Your task to perform on an android device: Open maps Image 0: 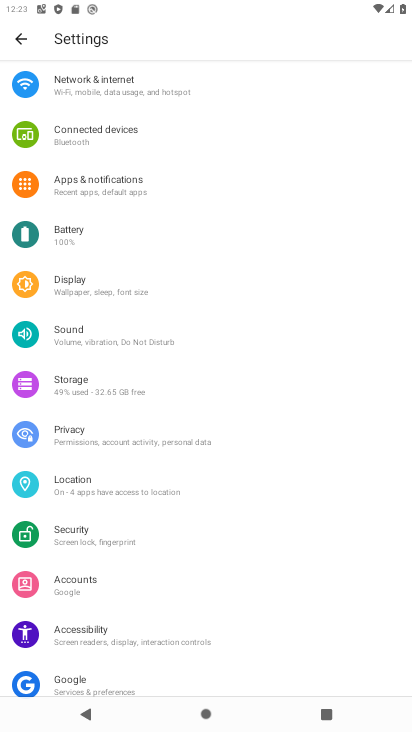
Step 0: press home button
Your task to perform on an android device: Open maps Image 1: 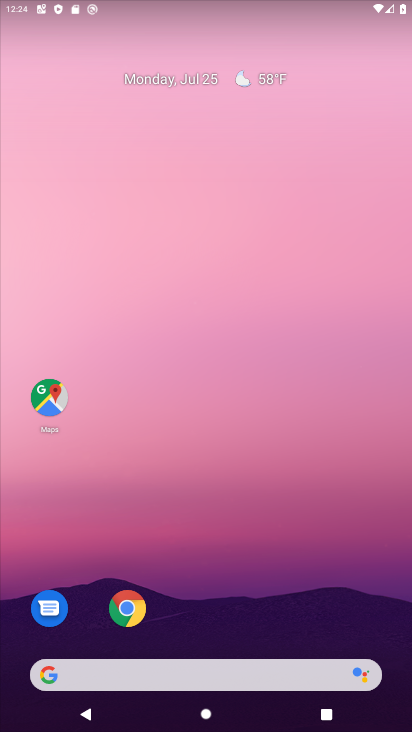
Step 1: click (47, 399)
Your task to perform on an android device: Open maps Image 2: 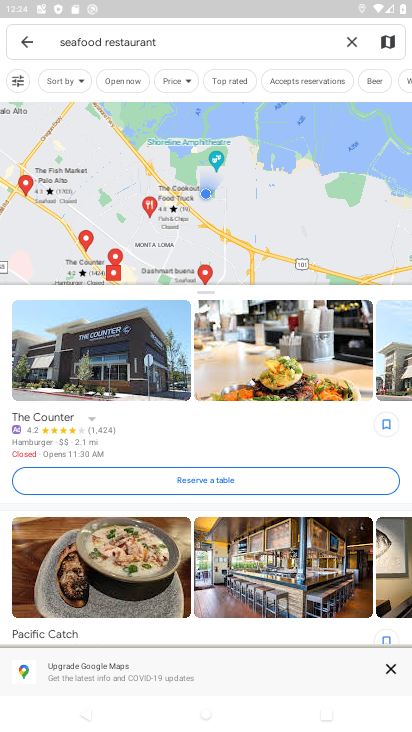
Step 2: click (356, 43)
Your task to perform on an android device: Open maps Image 3: 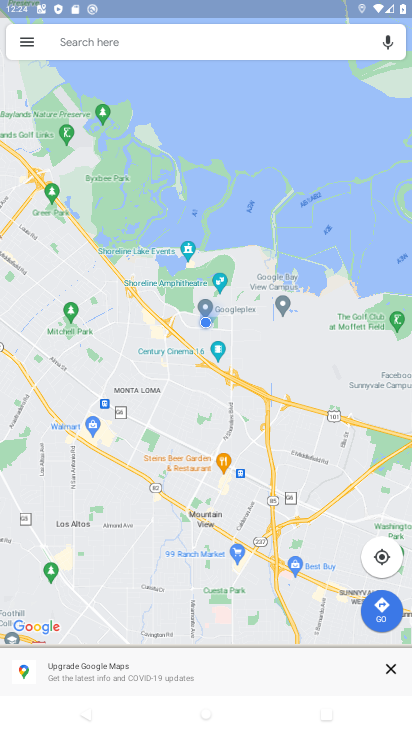
Step 3: task complete